Your task to perform on an android device: see sites visited before in the chrome app Image 0: 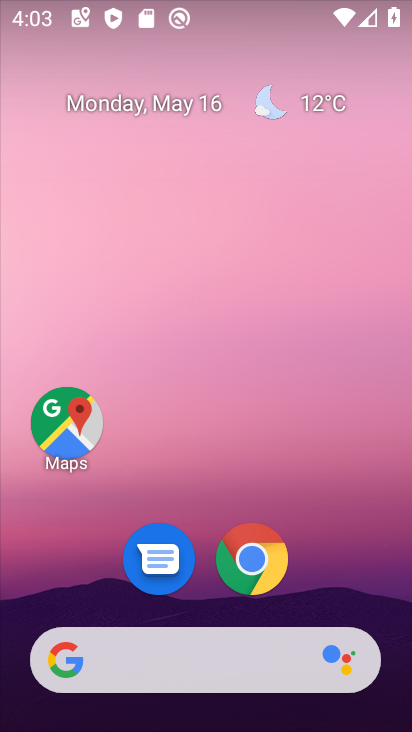
Step 0: click (261, 559)
Your task to perform on an android device: see sites visited before in the chrome app Image 1: 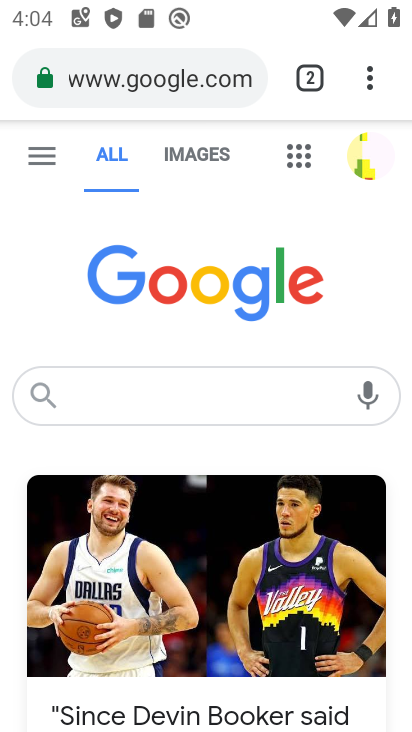
Step 1: click (367, 89)
Your task to perform on an android device: see sites visited before in the chrome app Image 2: 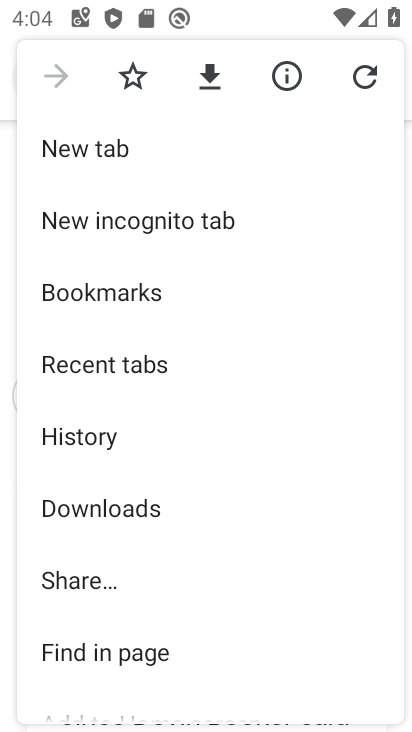
Step 2: drag from (149, 491) to (123, 295)
Your task to perform on an android device: see sites visited before in the chrome app Image 3: 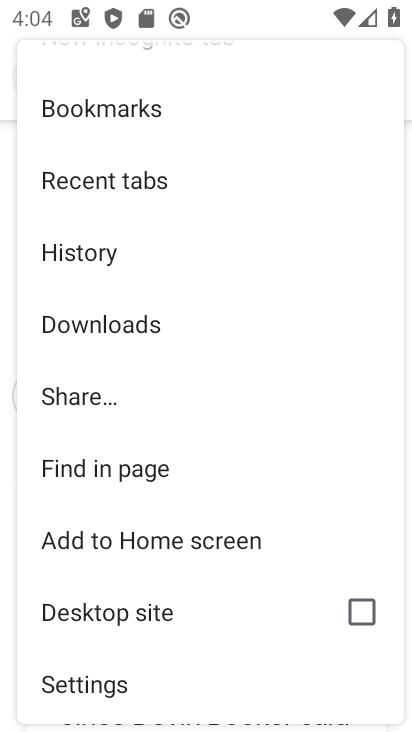
Step 3: click (117, 182)
Your task to perform on an android device: see sites visited before in the chrome app Image 4: 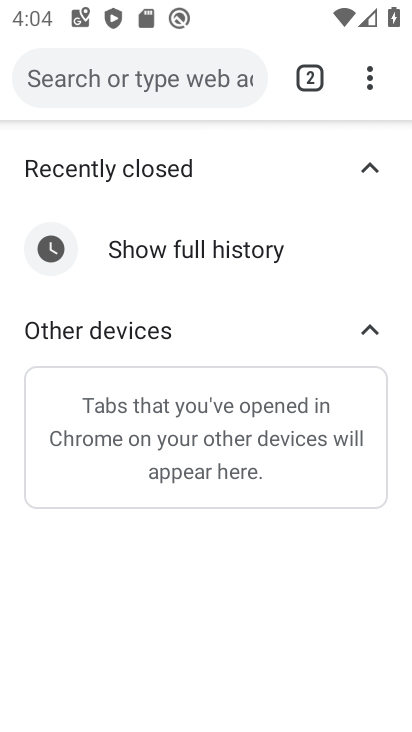
Step 4: task complete